Your task to perform on an android device: turn off javascript in the chrome app Image 0: 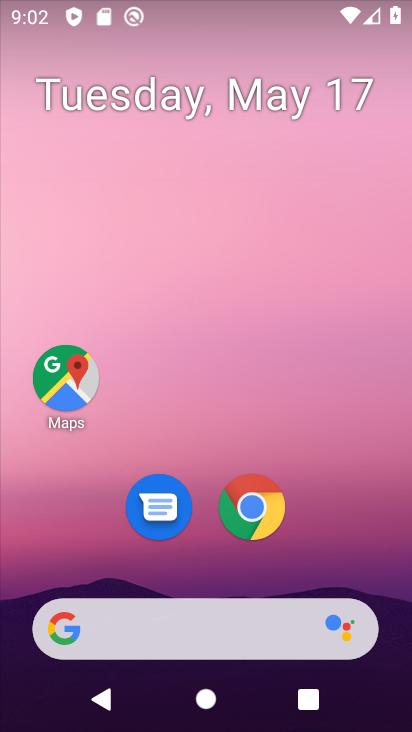
Step 0: drag from (256, 580) to (134, 31)
Your task to perform on an android device: turn off javascript in the chrome app Image 1: 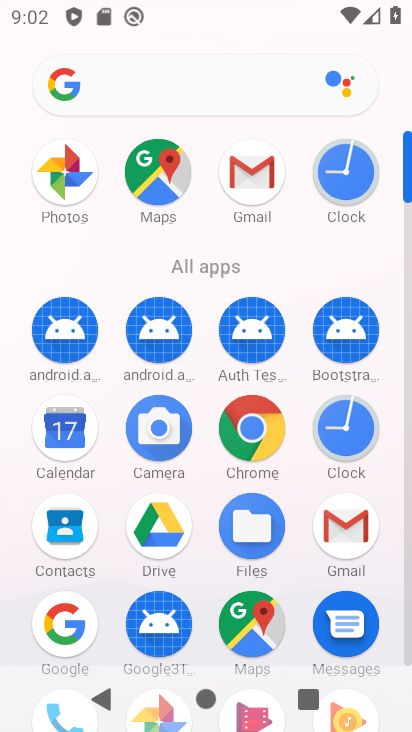
Step 1: drag from (260, 676) to (185, 181)
Your task to perform on an android device: turn off javascript in the chrome app Image 2: 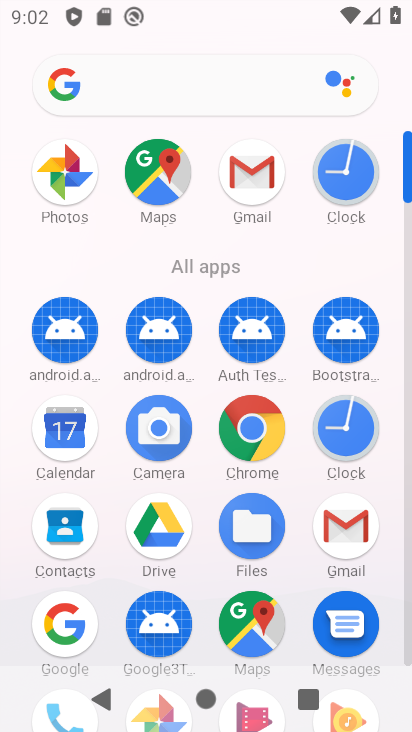
Step 2: click (254, 424)
Your task to perform on an android device: turn off javascript in the chrome app Image 3: 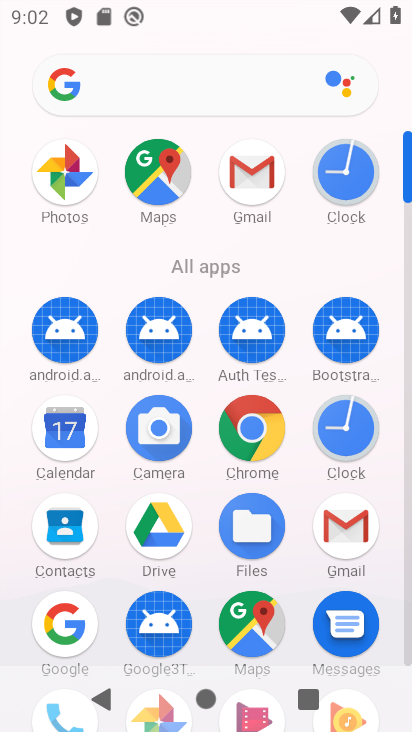
Step 3: click (254, 424)
Your task to perform on an android device: turn off javascript in the chrome app Image 4: 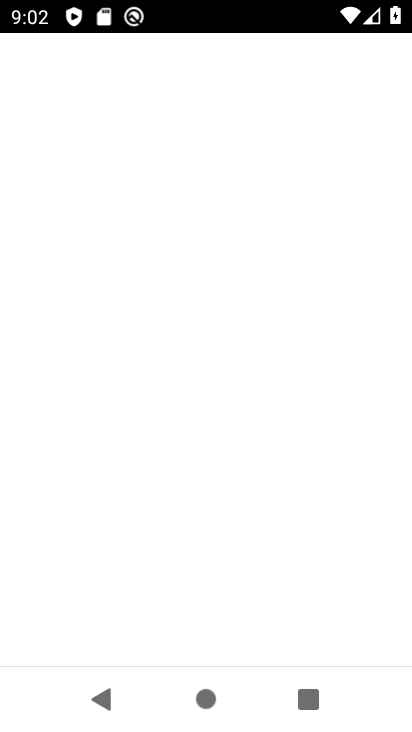
Step 4: click (250, 420)
Your task to perform on an android device: turn off javascript in the chrome app Image 5: 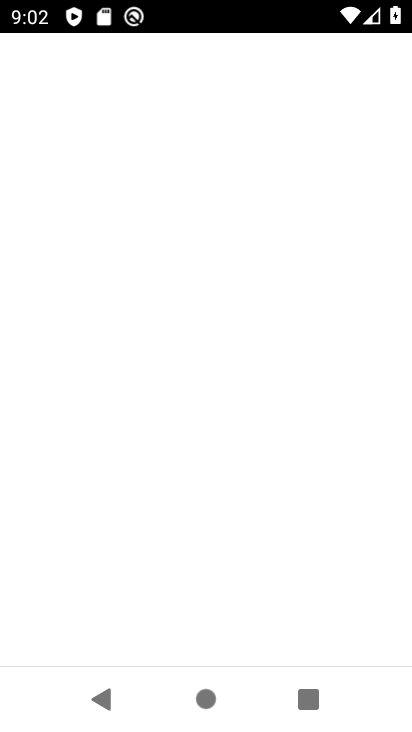
Step 5: click (250, 418)
Your task to perform on an android device: turn off javascript in the chrome app Image 6: 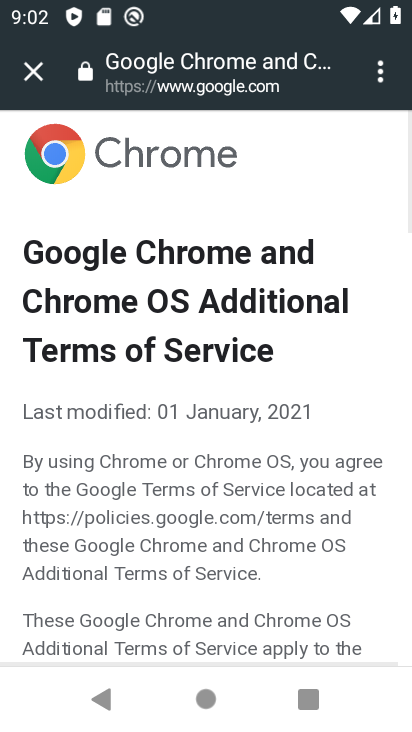
Step 6: drag from (379, 75) to (157, 349)
Your task to perform on an android device: turn off javascript in the chrome app Image 7: 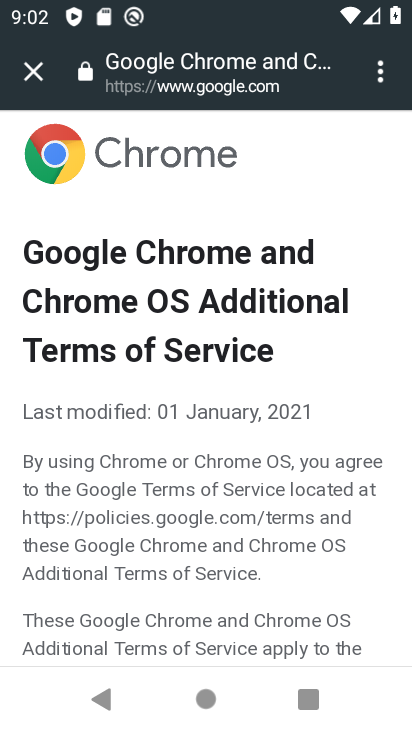
Step 7: click (15, 203)
Your task to perform on an android device: turn off javascript in the chrome app Image 8: 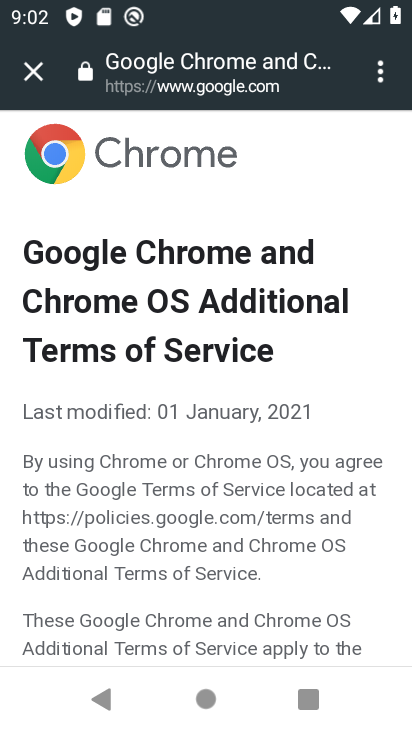
Step 8: click (15, 203)
Your task to perform on an android device: turn off javascript in the chrome app Image 9: 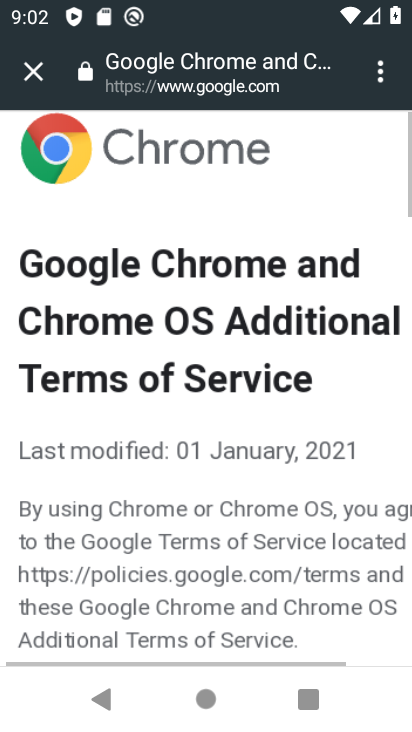
Step 9: click (42, 69)
Your task to perform on an android device: turn off javascript in the chrome app Image 10: 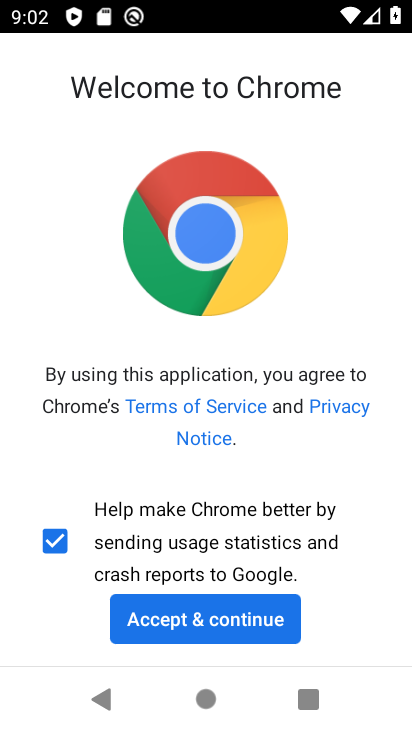
Step 10: click (211, 623)
Your task to perform on an android device: turn off javascript in the chrome app Image 11: 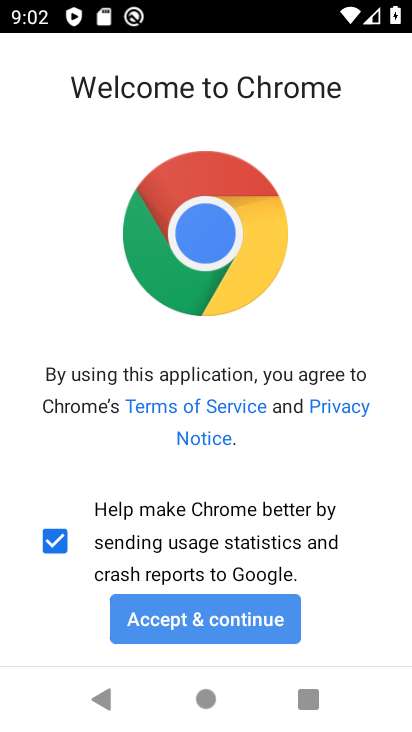
Step 11: click (213, 622)
Your task to perform on an android device: turn off javascript in the chrome app Image 12: 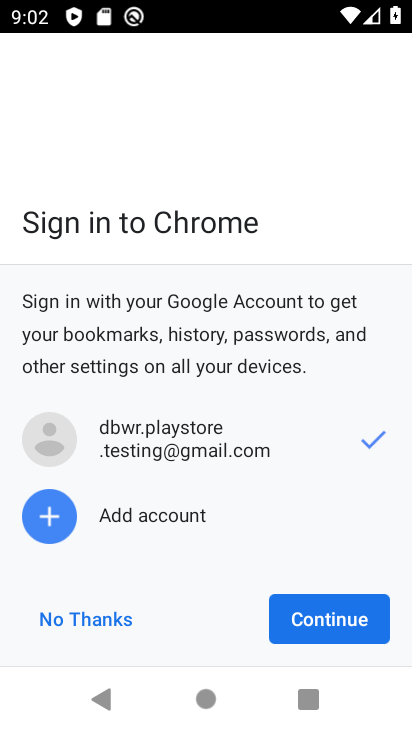
Step 12: click (306, 608)
Your task to perform on an android device: turn off javascript in the chrome app Image 13: 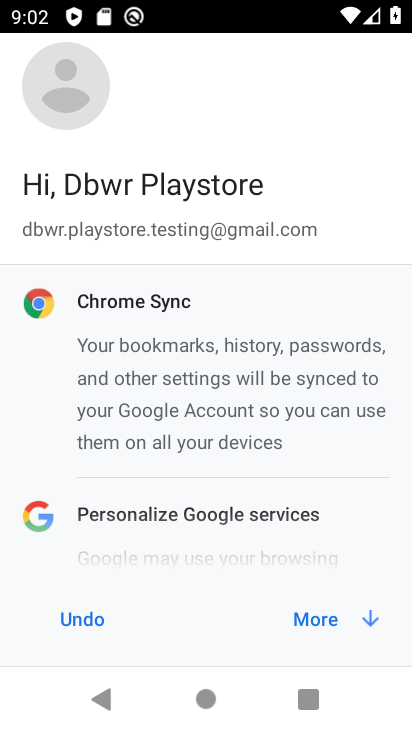
Step 13: click (316, 607)
Your task to perform on an android device: turn off javascript in the chrome app Image 14: 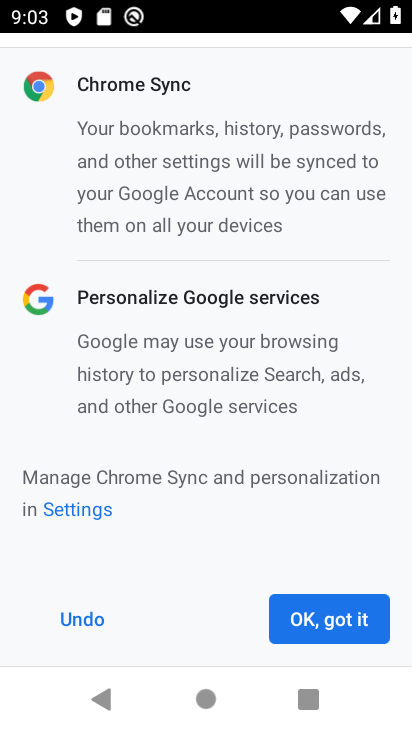
Step 14: click (316, 607)
Your task to perform on an android device: turn off javascript in the chrome app Image 15: 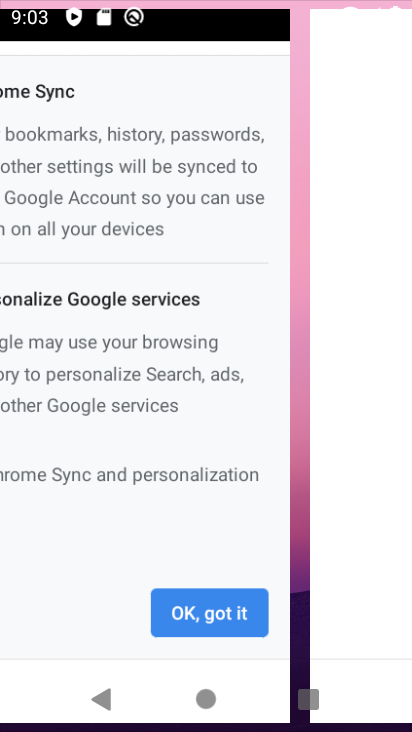
Step 15: click (316, 607)
Your task to perform on an android device: turn off javascript in the chrome app Image 16: 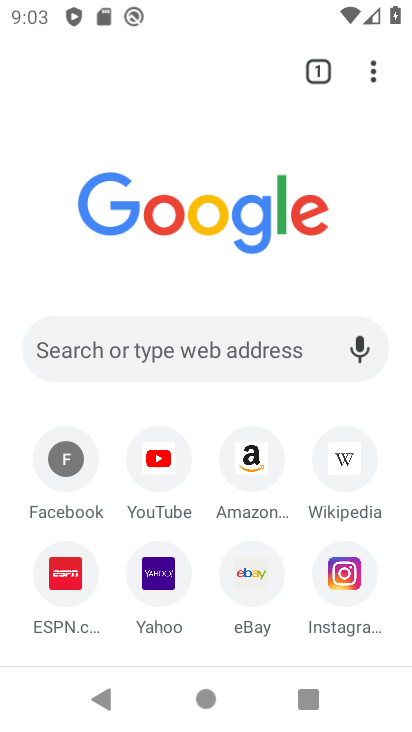
Step 16: drag from (369, 80) to (98, 515)
Your task to perform on an android device: turn off javascript in the chrome app Image 17: 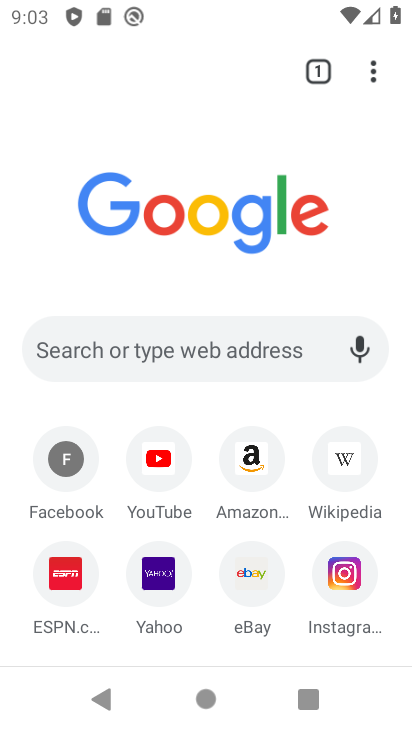
Step 17: click (98, 515)
Your task to perform on an android device: turn off javascript in the chrome app Image 18: 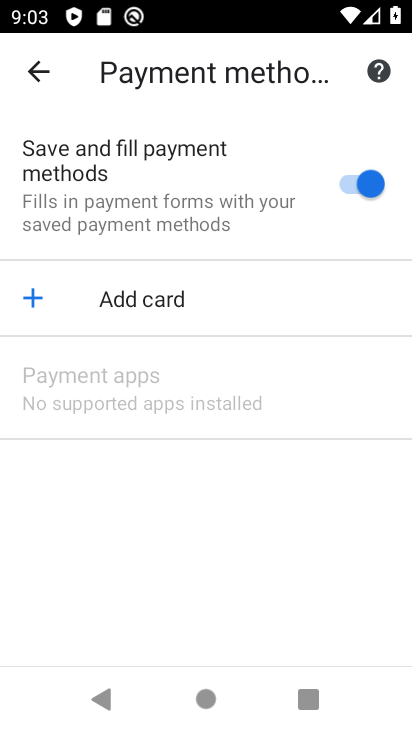
Step 18: click (33, 74)
Your task to perform on an android device: turn off javascript in the chrome app Image 19: 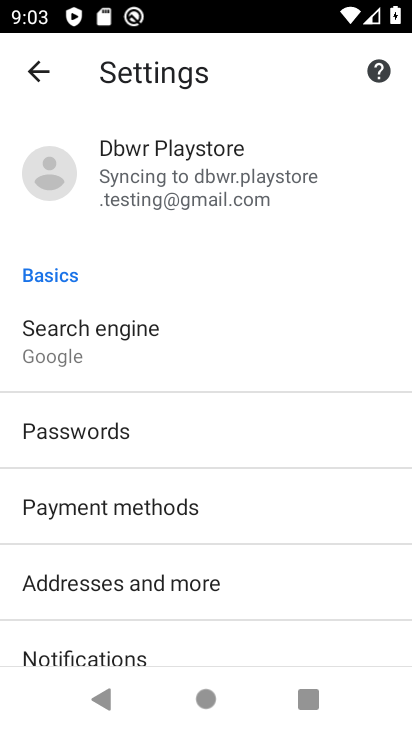
Step 19: drag from (156, 291) to (156, 190)
Your task to perform on an android device: turn off javascript in the chrome app Image 20: 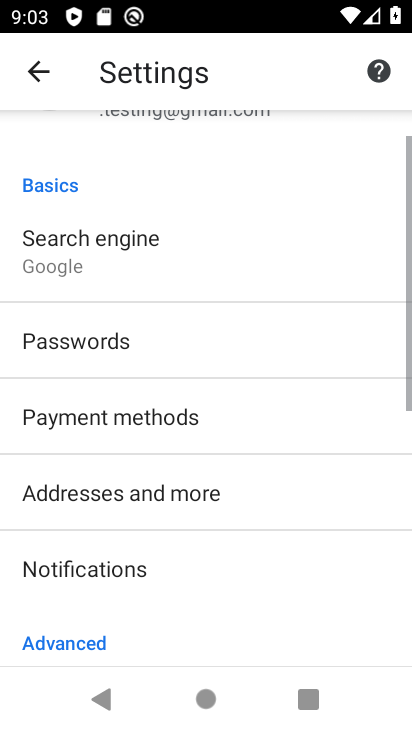
Step 20: drag from (190, 436) to (180, 147)
Your task to perform on an android device: turn off javascript in the chrome app Image 21: 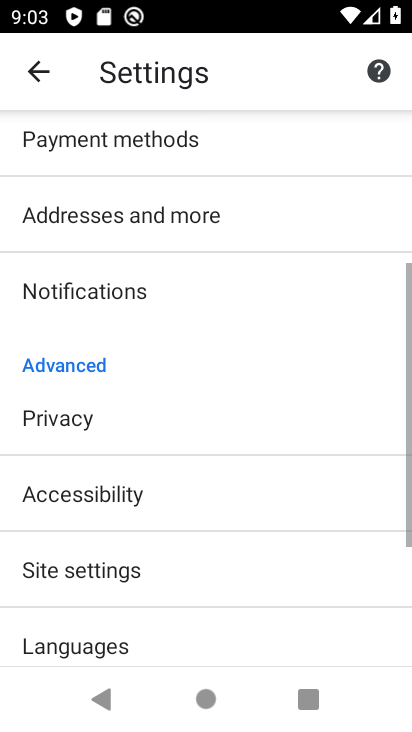
Step 21: drag from (214, 521) to (280, 296)
Your task to perform on an android device: turn off javascript in the chrome app Image 22: 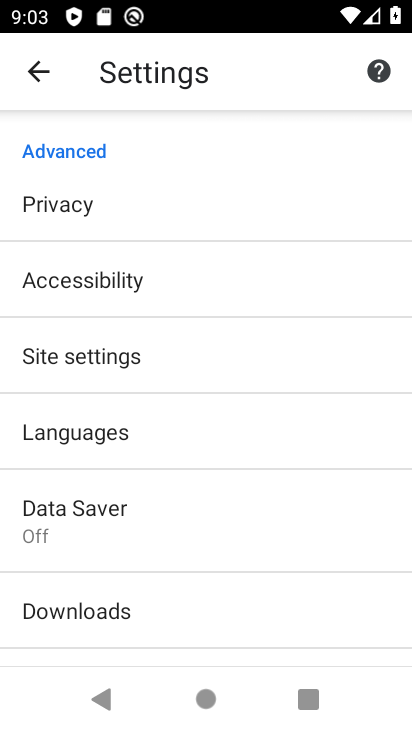
Step 22: click (66, 354)
Your task to perform on an android device: turn off javascript in the chrome app Image 23: 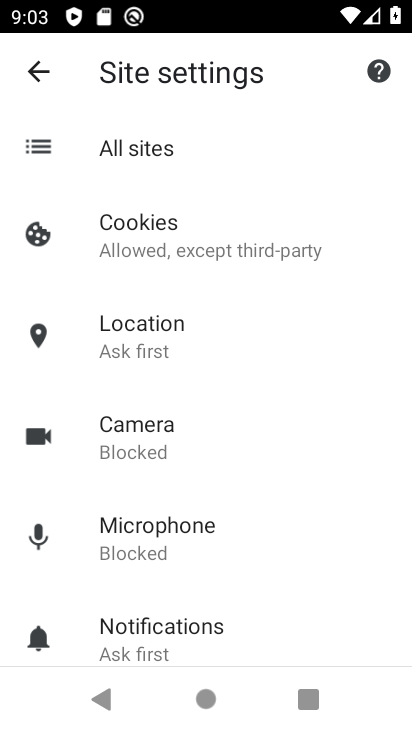
Step 23: drag from (151, 540) to (121, 202)
Your task to perform on an android device: turn off javascript in the chrome app Image 24: 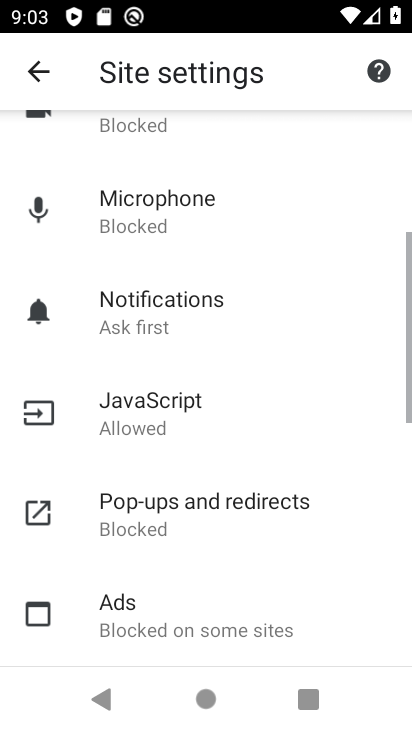
Step 24: drag from (125, 457) to (76, 132)
Your task to perform on an android device: turn off javascript in the chrome app Image 25: 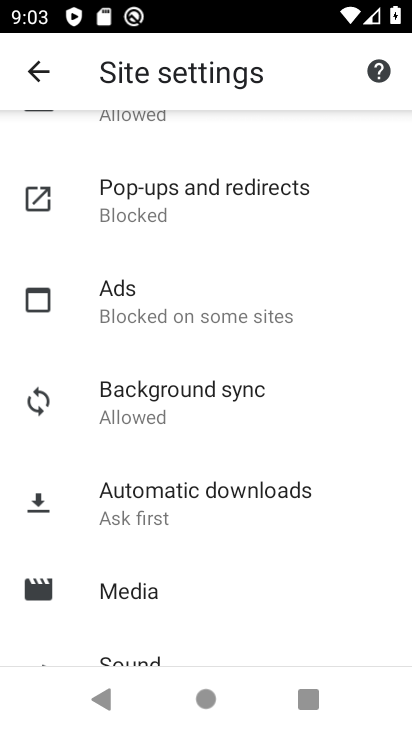
Step 25: drag from (139, 196) to (135, 508)
Your task to perform on an android device: turn off javascript in the chrome app Image 26: 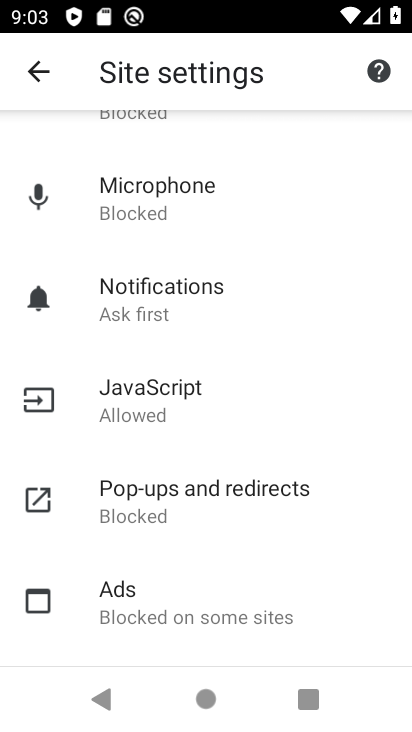
Step 26: click (138, 409)
Your task to perform on an android device: turn off javascript in the chrome app Image 27: 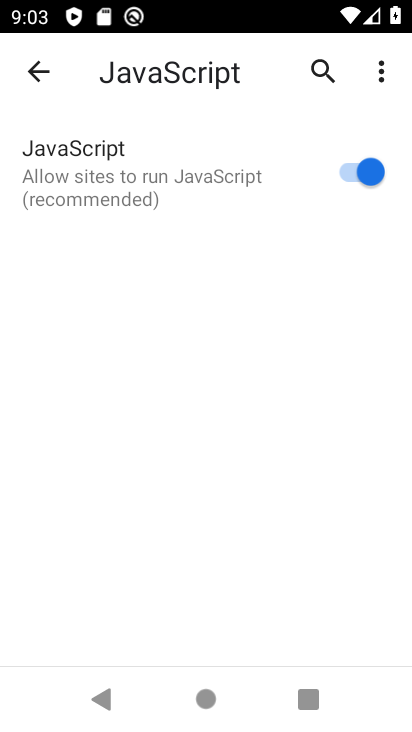
Step 27: click (367, 171)
Your task to perform on an android device: turn off javascript in the chrome app Image 28: 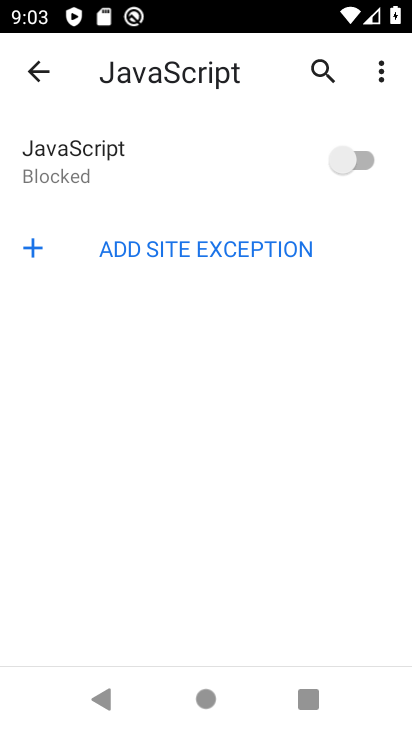
Step 28: task complete